Your task to perform on an android device: Go to wifi settings Image 0: 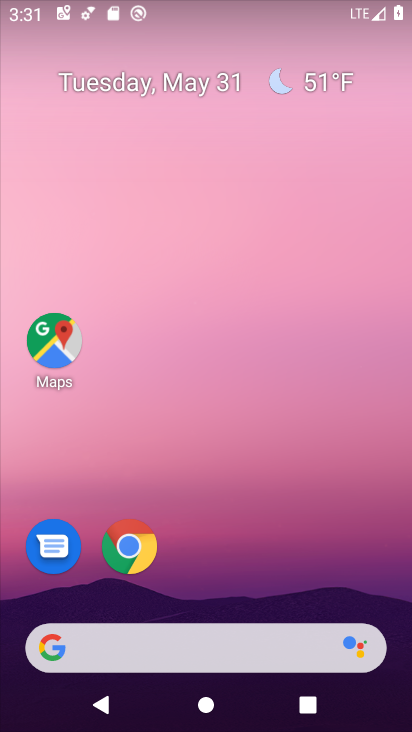
Step 0: drag from (291, 297) to (246, 17)
Your task to perform on an android device: Go to wifi settings Image 1: 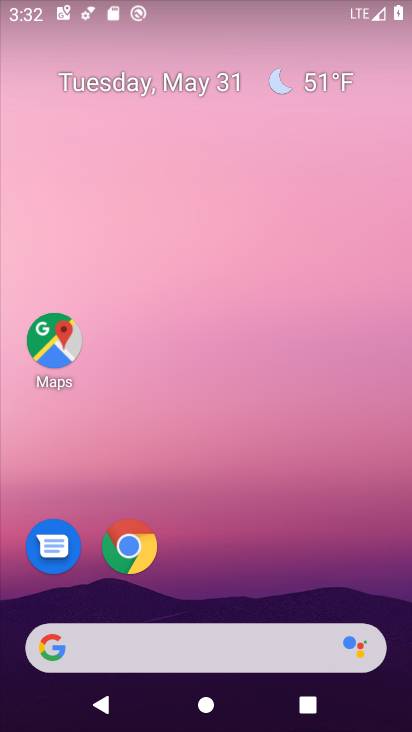
Step 1: drag from (313, 704) to (280, 325)
Your task to perform on an android device: Go to wifi settings Image 2: 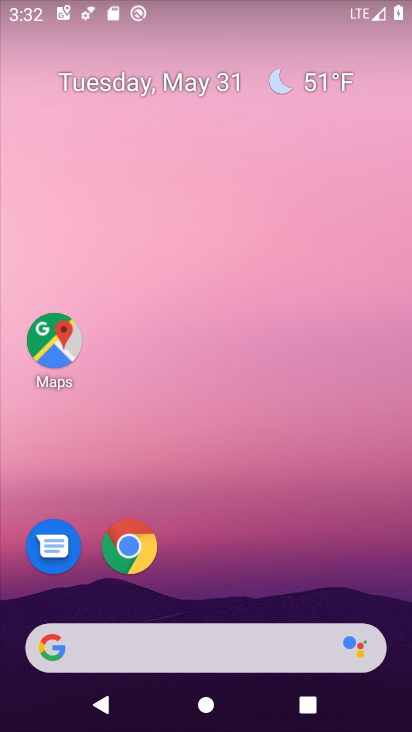
Step 2: drag from (307, 700) to (303, 582)
Your task to perform on an android device: Go to wifi settings Image 3: 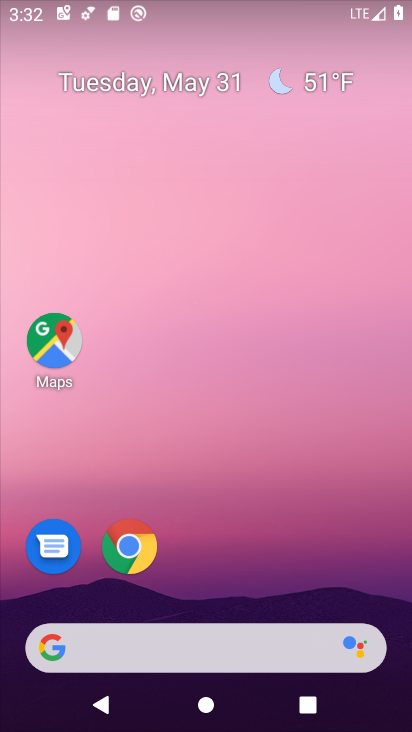
Step 3: drag from (274, 539) to (180, 28)
Your task to perform on an android device: Go to wifi settings Image 4: 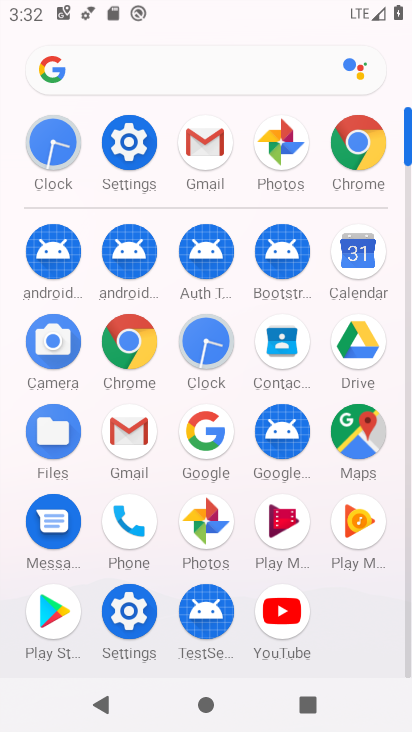
Step 4: click (146, 137)
Your task to perform on an android device: Go to wifi settings Image 5: 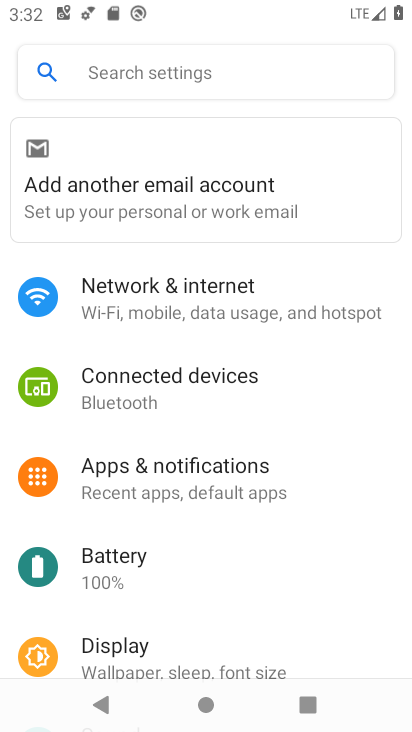
Step 5: click (289, 308)
Your task to perform on an android device: Go to wifi settings Image 6: 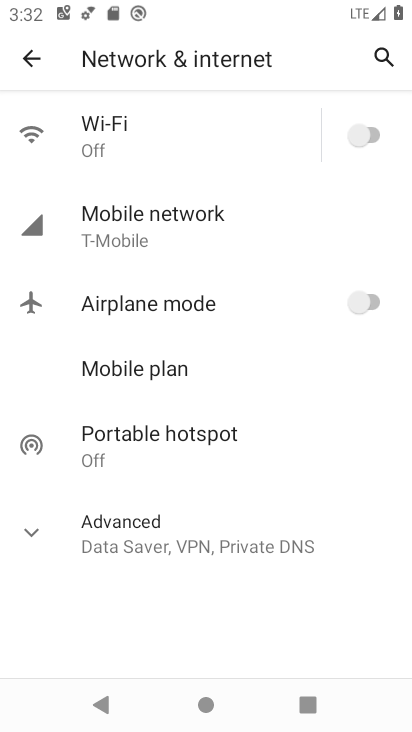
Step 6: click (236, 122)
Your task to perform on an android device: Go to wifi settings Image 7: 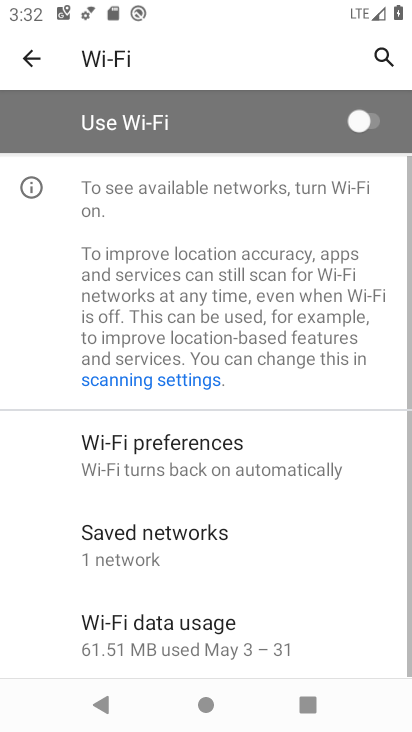
Step 7: task complete